Your task to perform on an android device: Go to settings Image 0: 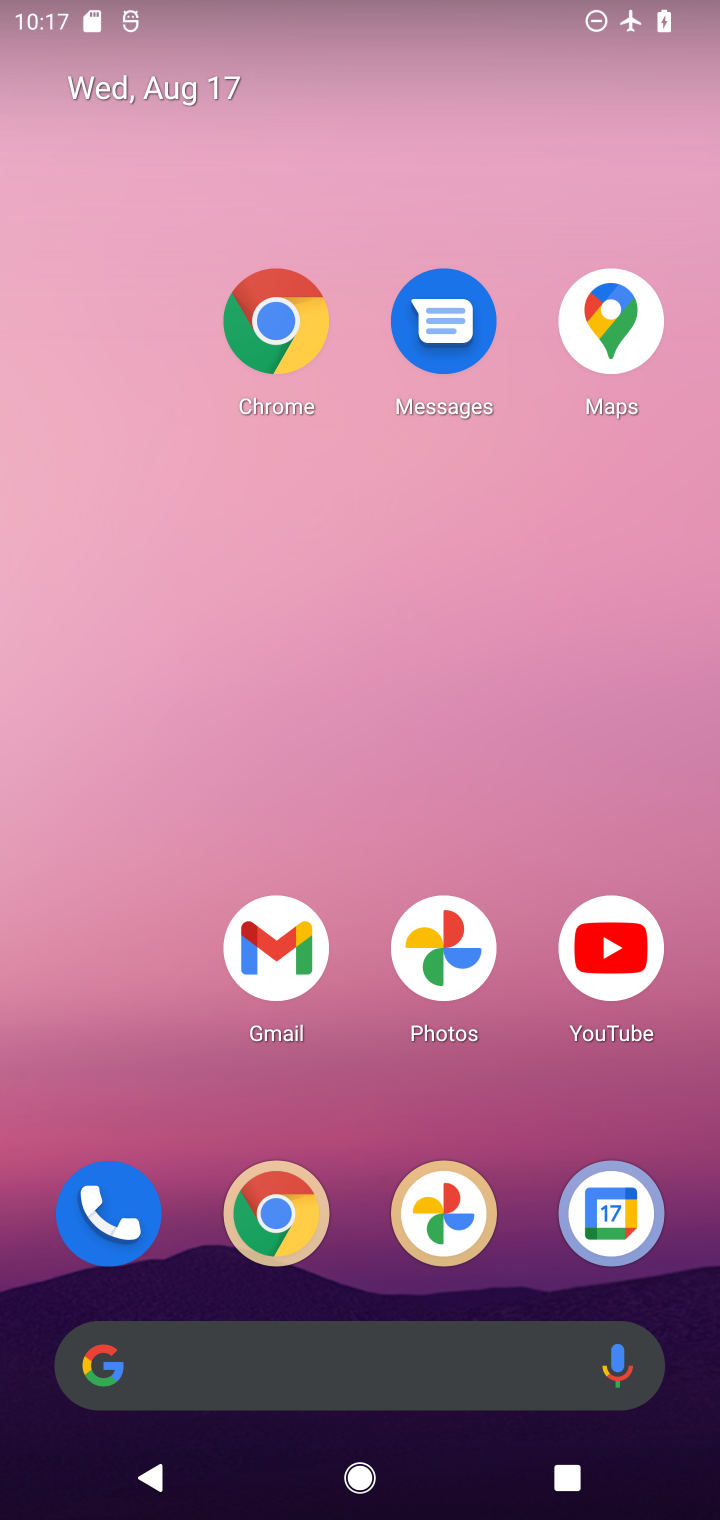
Step 0: drag from (385, 1312) to (473, 497)
Your task to perform on an android device: Go to settings Image 1: 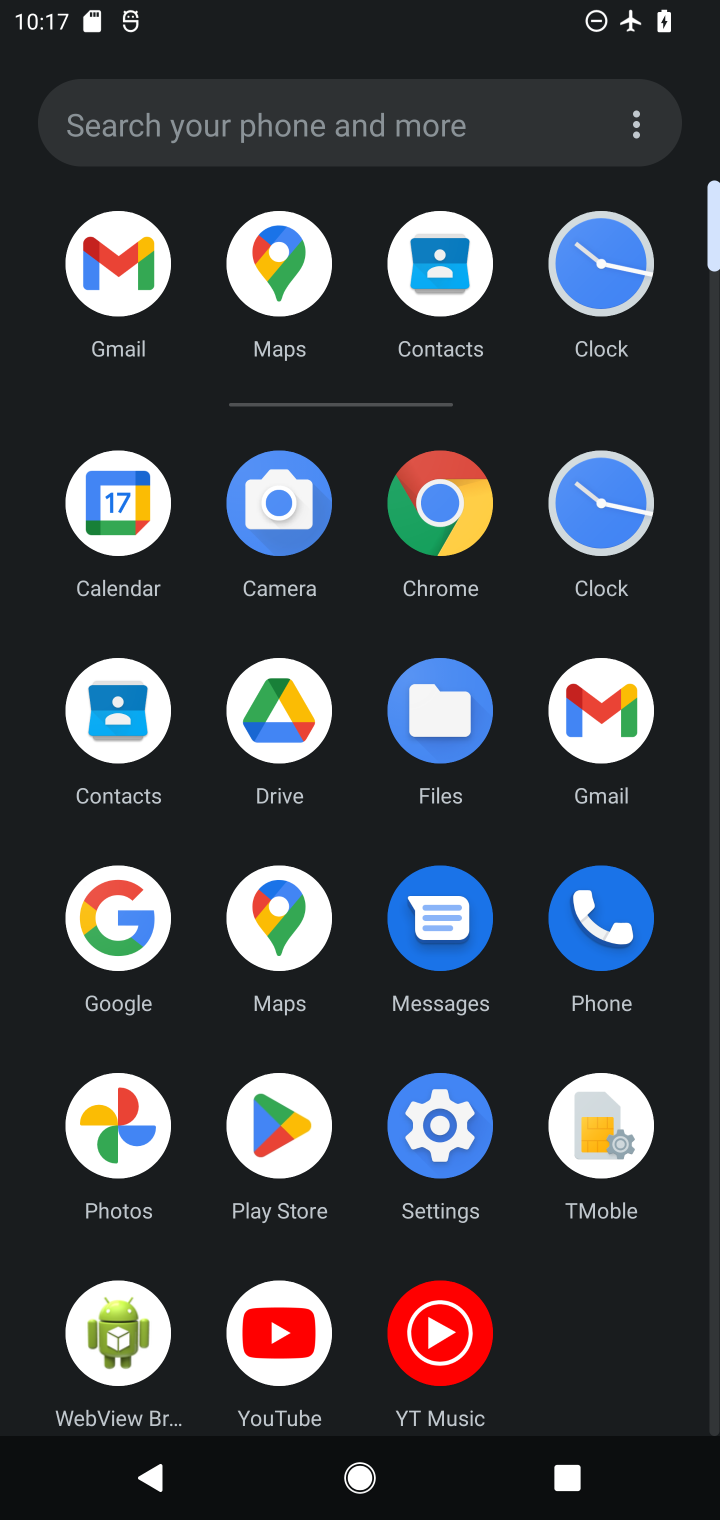
Step 1: click (401, 1143)
Your task to perform on an android device: Go to settings Image 2: 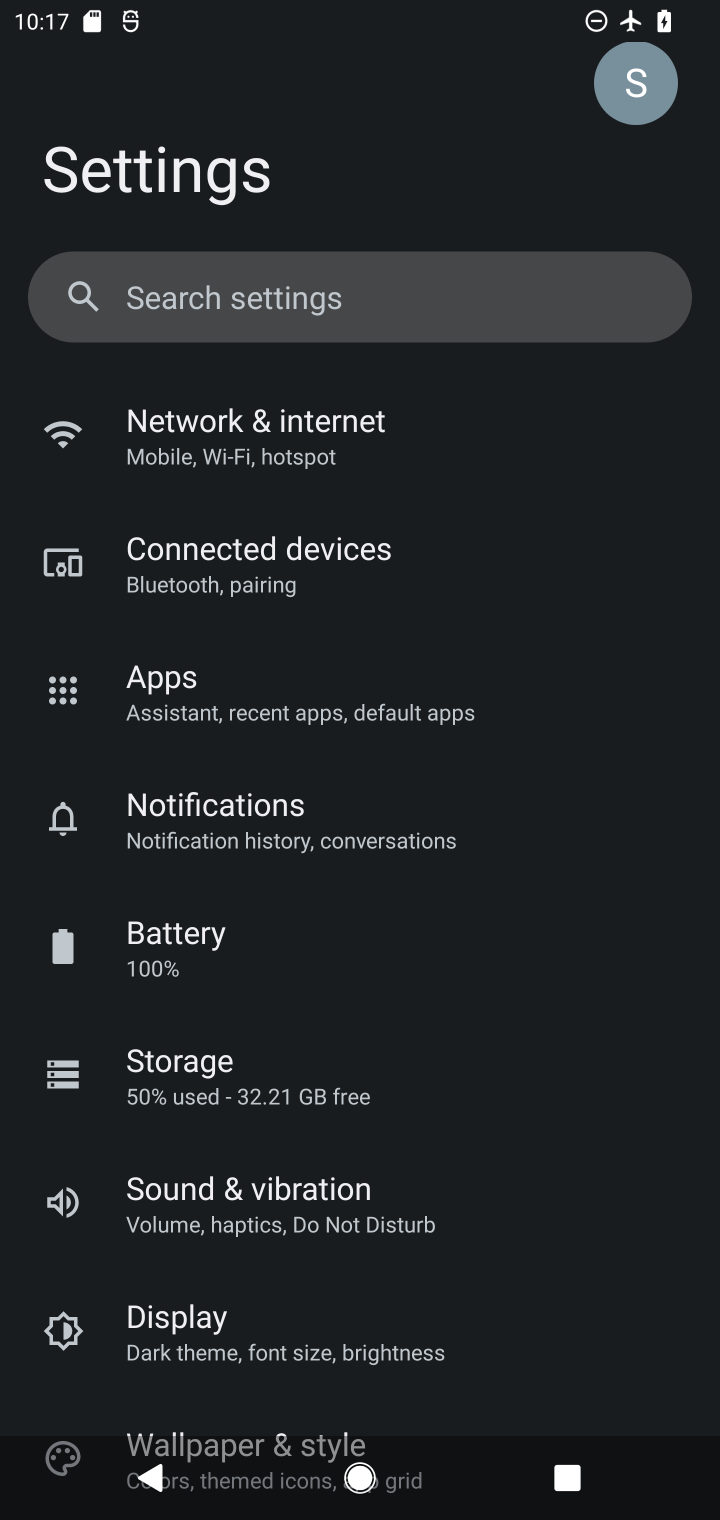
Step 2: task complete